Your task to perform on an android device: open wifi settings Image 0: 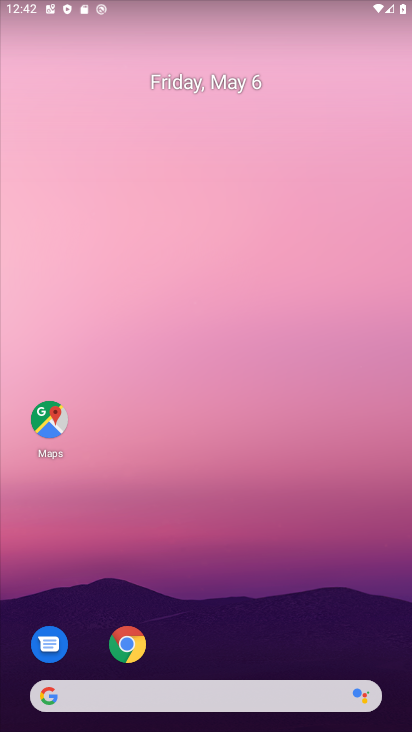
Step 0: click (345, 729)
Your task to perform on an android device: open wifi settings Image 1: 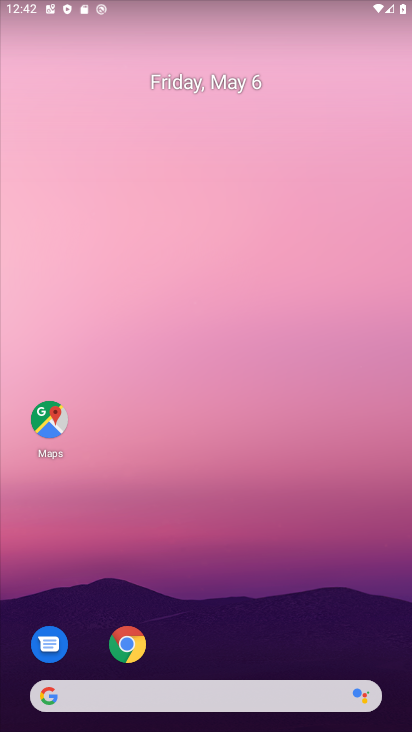
Step 1: drag from (154, 683) to (235, 80)
Your task to perform on an android device: open wifi settings Image 2: 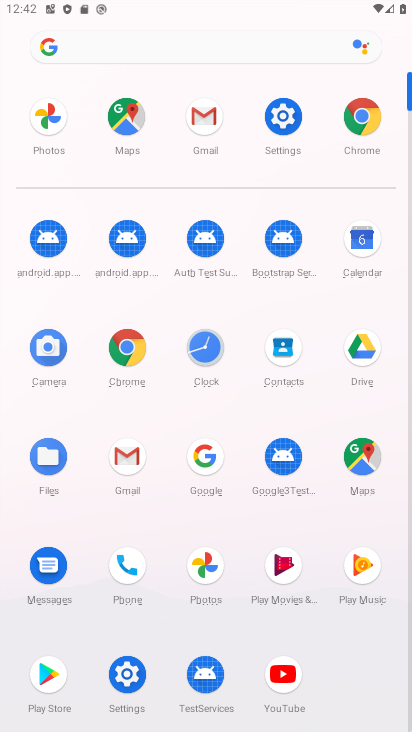
Step 2: click (279, 116)
Your task to perform on an android device: open wifi settings Image 3: 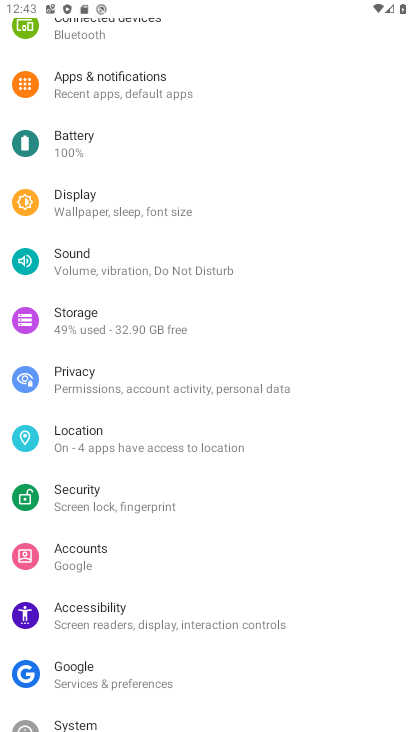
Step 3: drag from (155, 149) to (176, 639)
Your task to perform on an android device: open wifi settings Image 4: 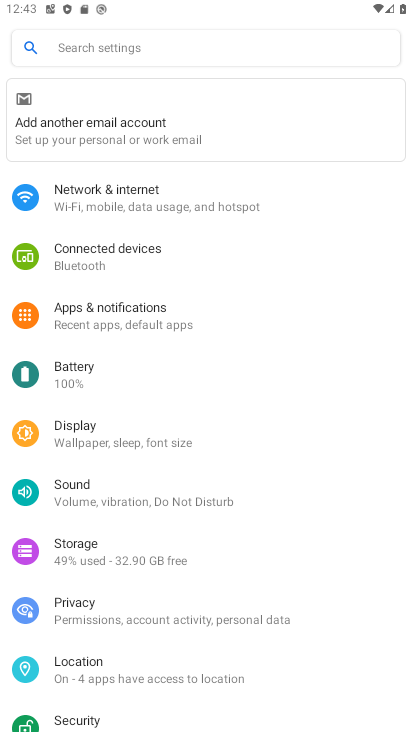
Step 4: click (142, 206)
Your task to perform on an android device: open wifi settings Image 5: 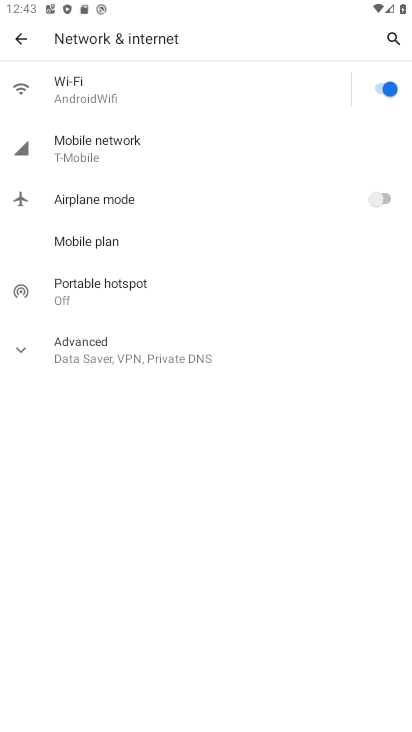
Step 5: click (88, 97)
Your task to perform on an android device: open wifi settings Image 6: 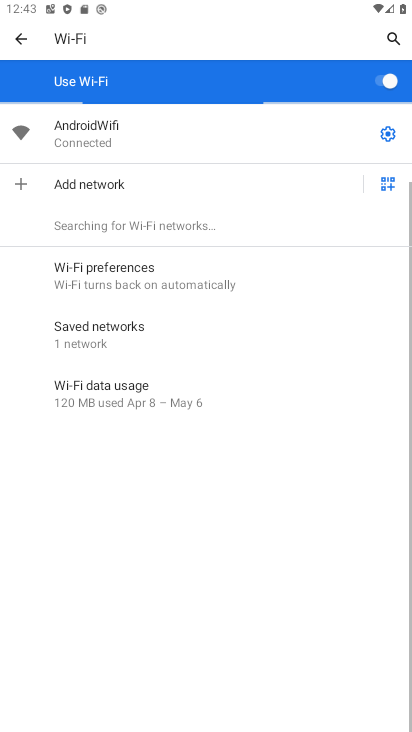
Step 6: task complete